Your task to perform on an android device: Open Wikipedia Image 0: 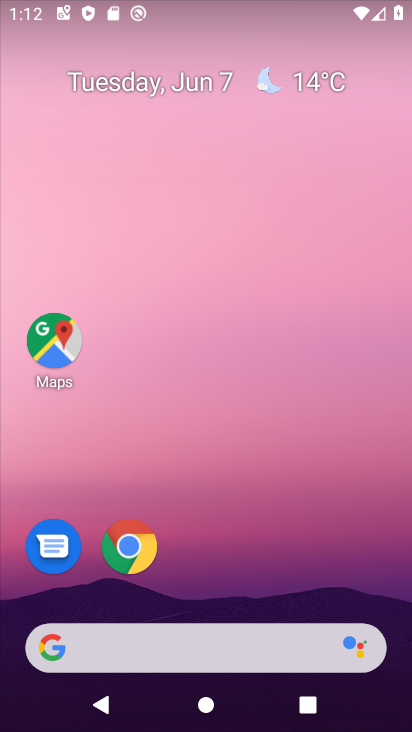
Step 0: click (149, 653)
Your task to perform on an android device: Open Wikipedia Image 1: 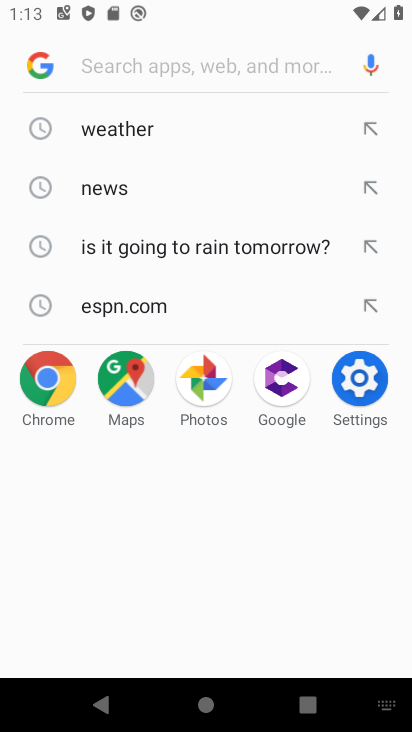
Step 1: type "Wikipedia"
Your task to perform on an android device: Open Wikipedia Image 2: 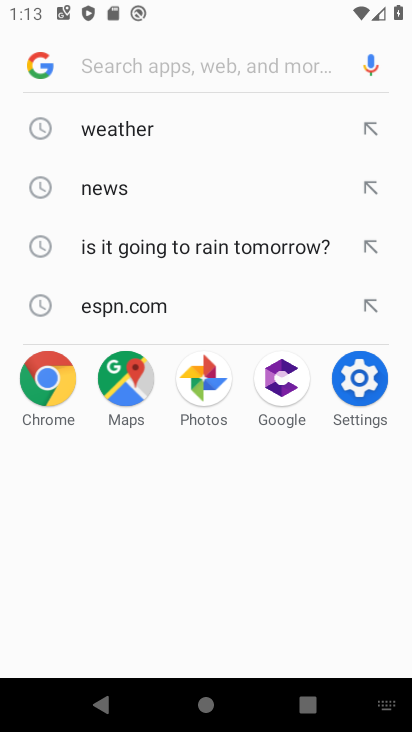
Step 2: click (150, 73)
Your task to perform on an android device: Open Wikipedia Image 3: 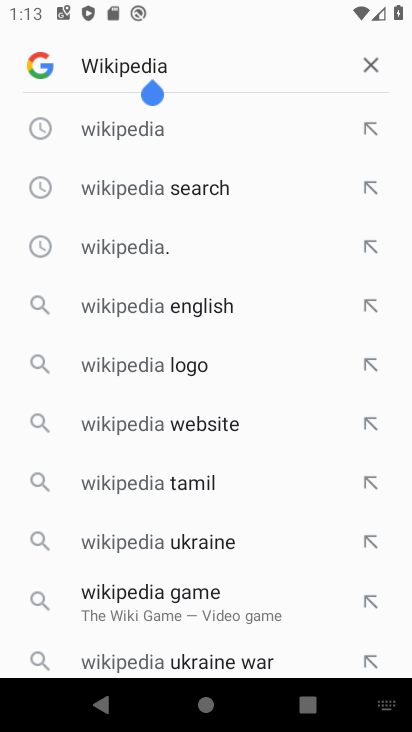
Step 3: click (155, 118)
Your task to perform on an android device: Open Wikipedia Image 4: 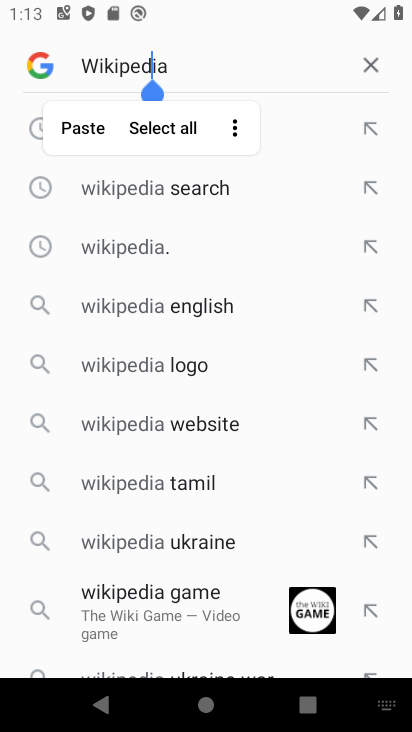
Step 4: click (153, 124)
Your task to perform on an android device: Open Wikipedia Image 5: 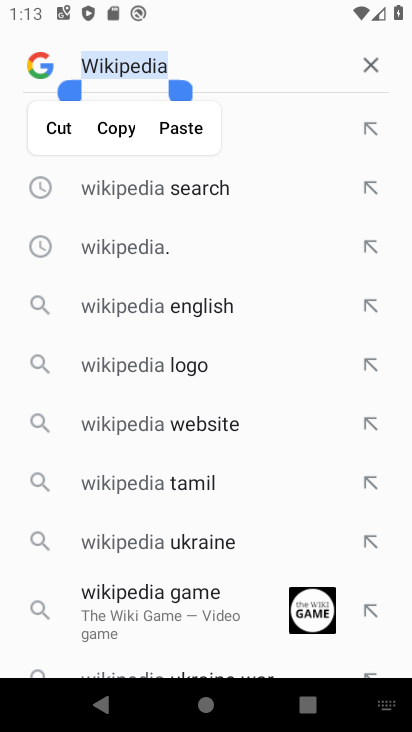
Step 5: click (251, 133)
Your task to perform on an android device: Open Wikipedia Image 6: 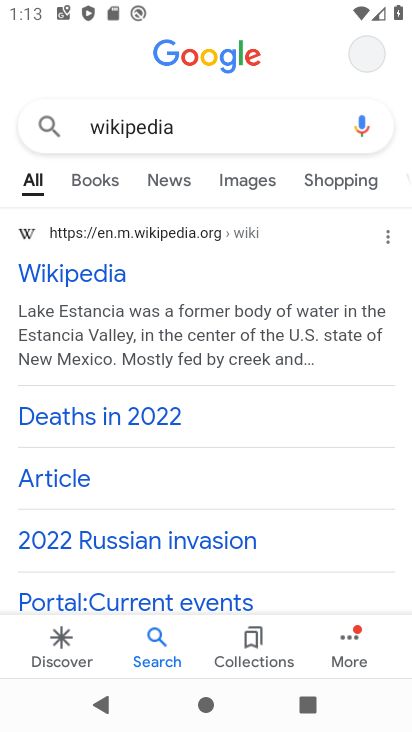
Step 6: click (52, 263)
Your task to perform on an android device: Open Wikipedia Image 7: 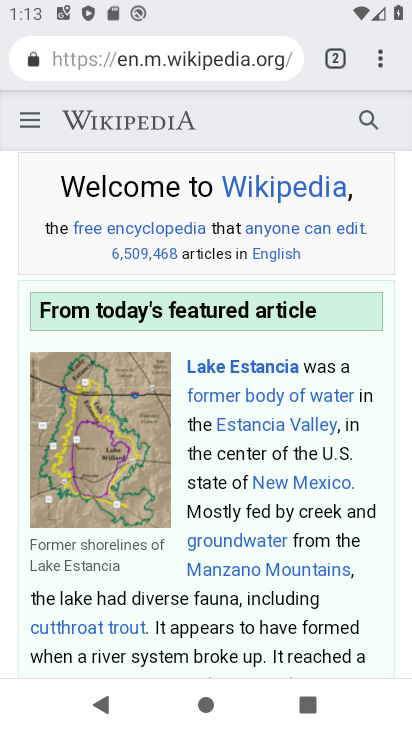
Step 7: task complete